Your task to perform on an android device: What's on my calendar today? Image 0: 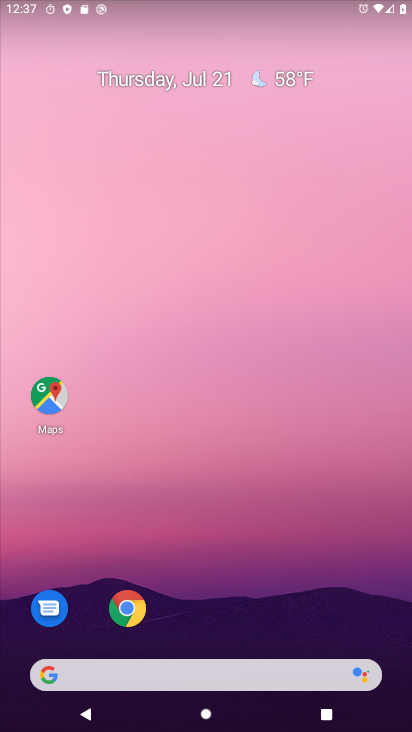
Step 0: press home button
Your task to perform on an android device: What's on my calendar today? Image 1: 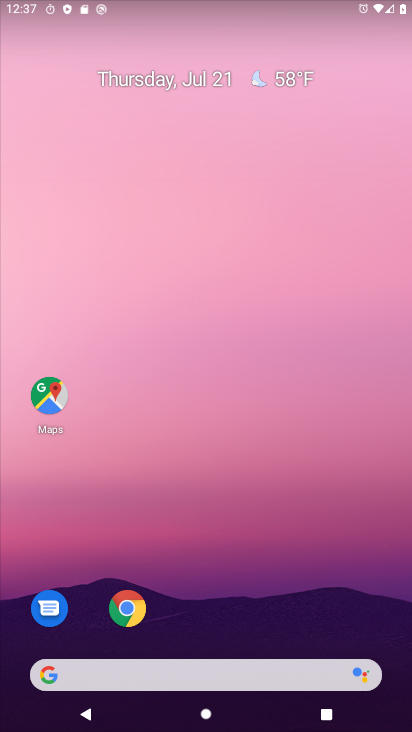
Step 1: drag from (214, 633) to (223, 28)
Your task to perform on an android device: What's on my calendar today? Image 2: 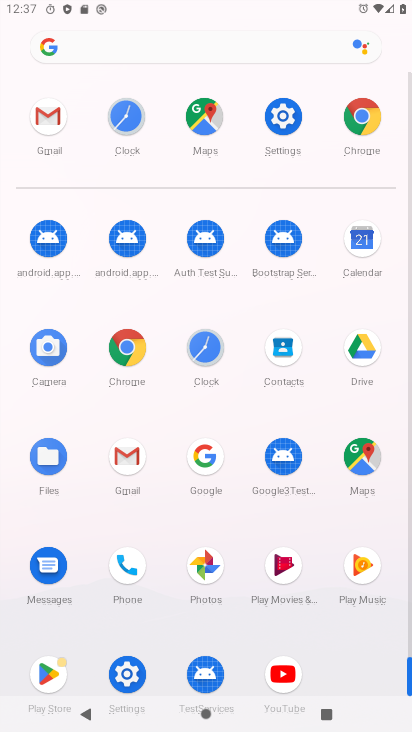
Step 2: click (360, 237)
Your task to perform on an android device: What's on my calendar today? Image 3: 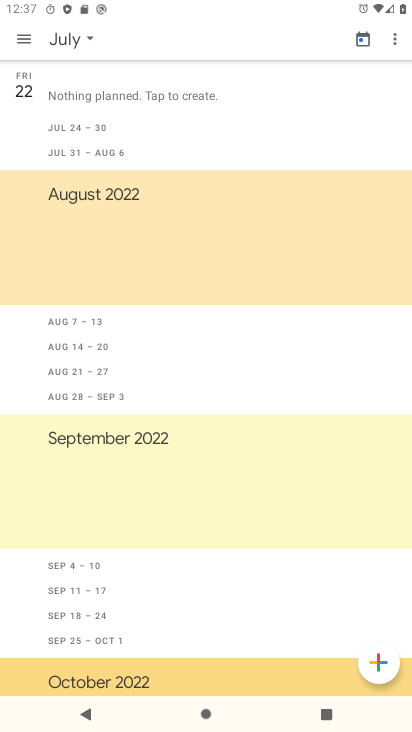
Step 3: click (29, 40)
Your task to perform on an android device: What's on my calendar today? Image 4: 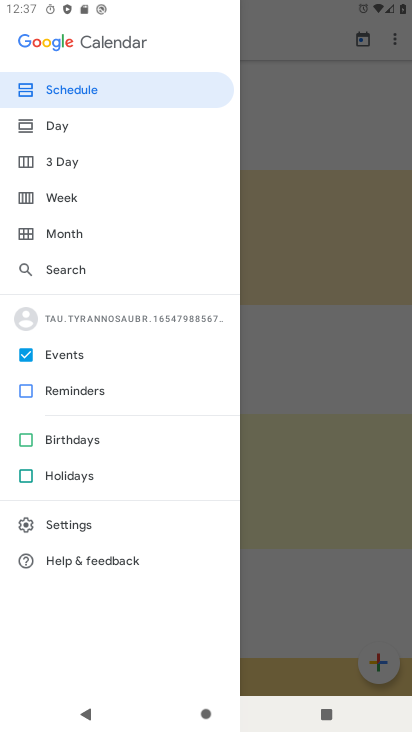
Step 4: click (73, 120)
Your task to perform on an android device: What's on my calendar today? Image 5: 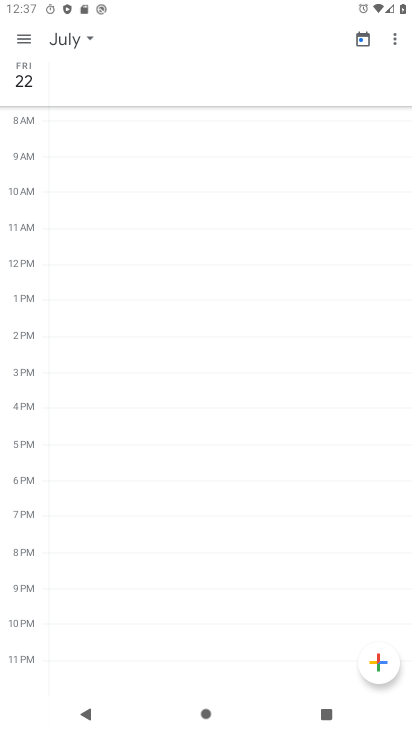
Step 5: click (21, 42)
Your task to perform on an android device: What's on my calendar today? Image 6: 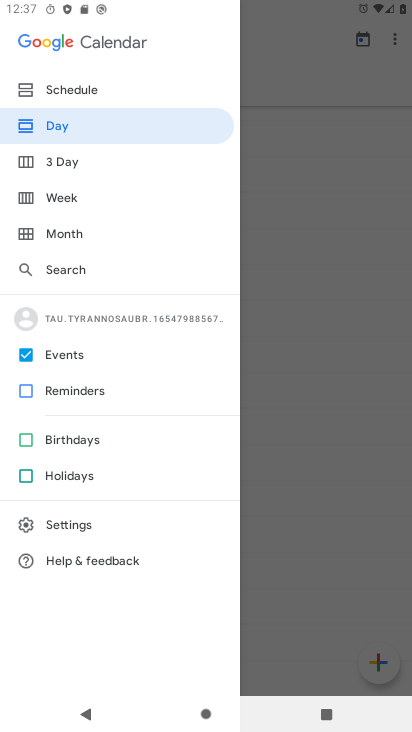
Step 6: click (79, 127)
Your task to perform on an android device: What's on my calendar today? Image 7: 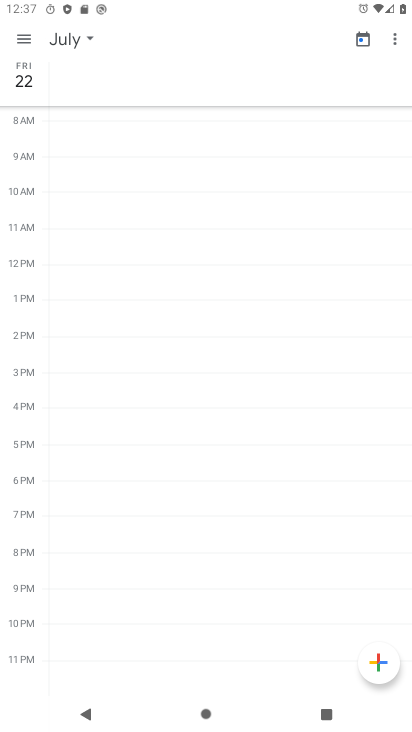
Step 7: click (17, 37)
Your task to perform on an android device: What's on my calendar today? Image 8: 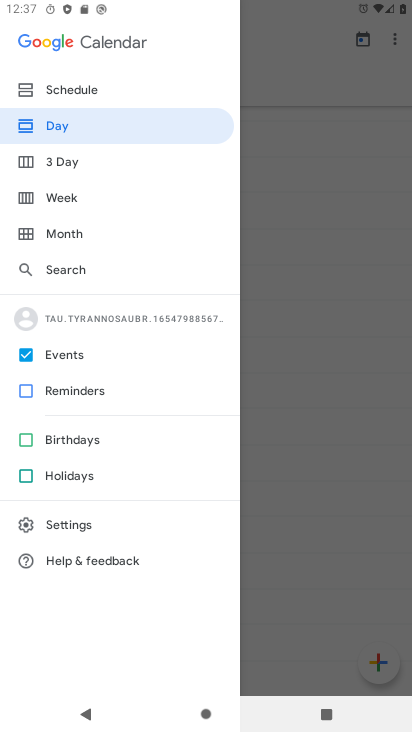
Step 8: click (48, 123)
Your task to perform on an android device: What's on my calendar today? Image 9: 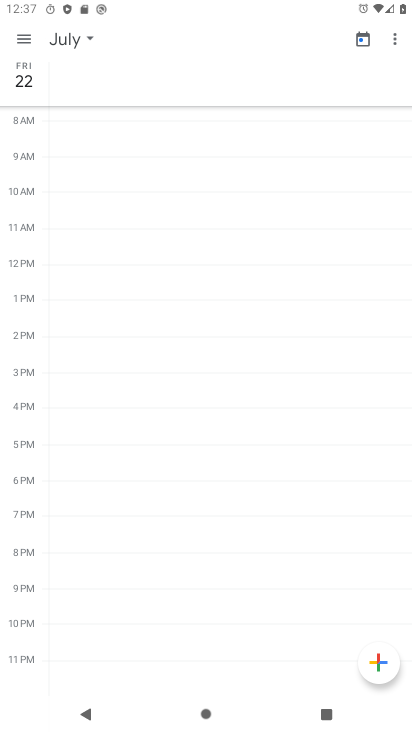
Step 9: click (26, 76)
Your task to perform on an android device: What's on my calendar today? Image 10: 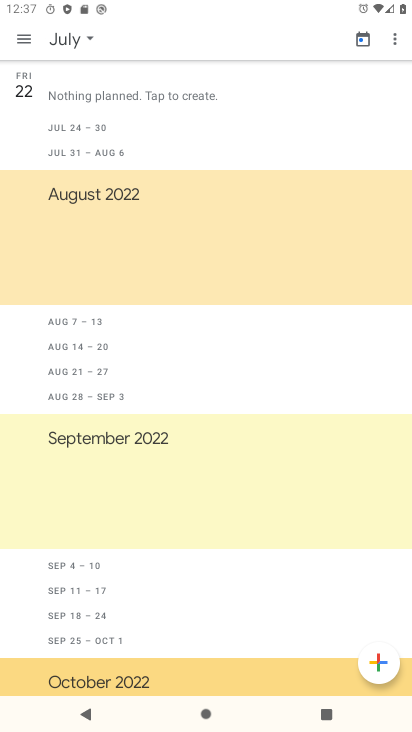
Step 10: click (83, 37)
Your task to perform on an android device: What's on my calendar today? Image 11: 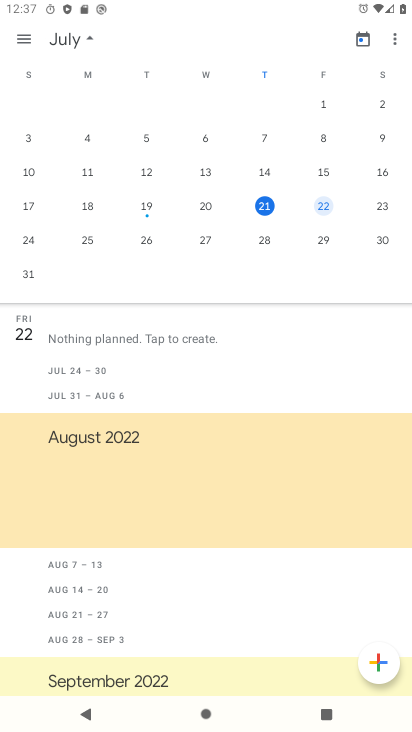
Step 11: click (261, 205)
Your task to perform on an android device: What's on my calendar today? Image 12: 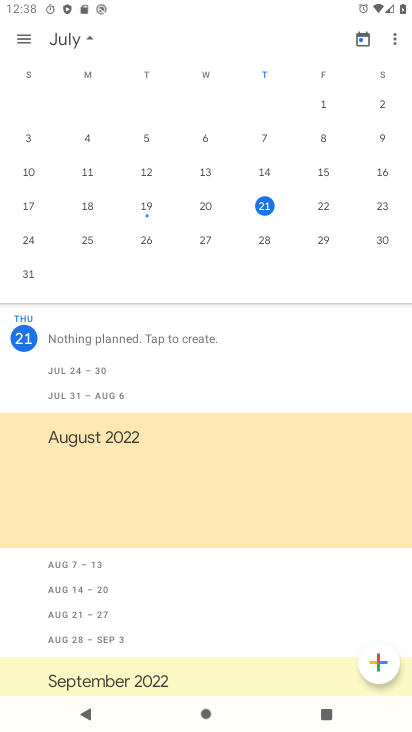
Step 12: click (18, 339)
Your task to perform on an android device: What's on my calendar today? Image 13: 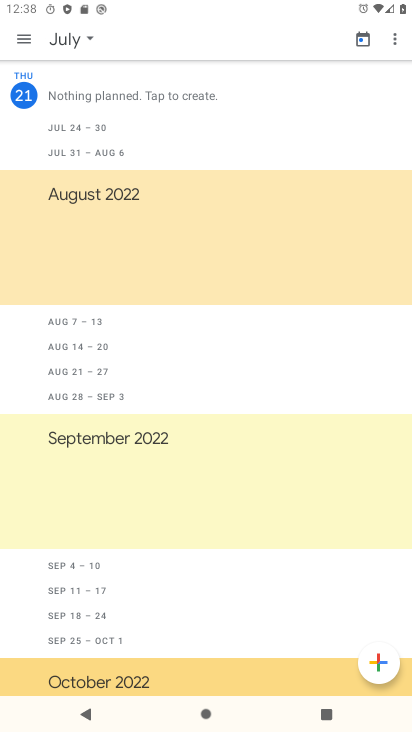
Step 13: click (28, 91)
Your task to perform on an android device: What's on my calendar today? Image 14: 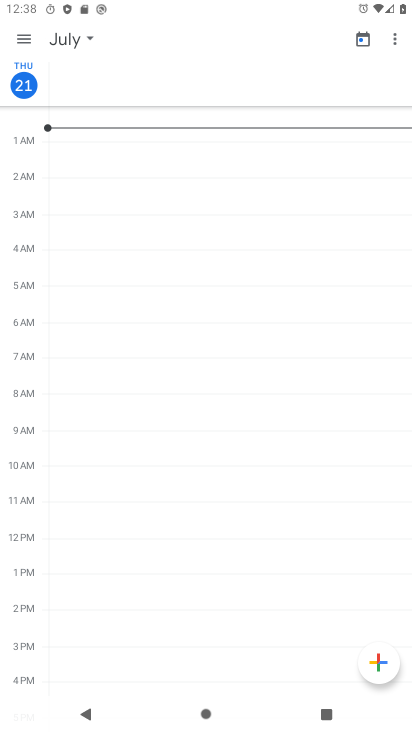
Step 14: task complete